Your task to perform on an android device: toggle sleep mode Image 0: 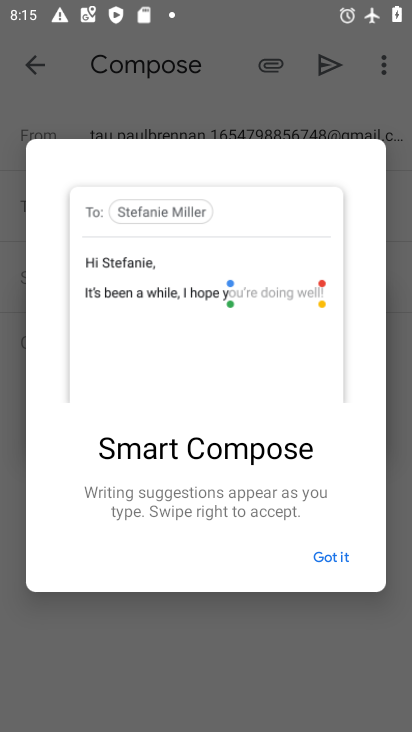
Step 0: press home button
Your task to perform on an android device: toggle sleep mode Image 1: 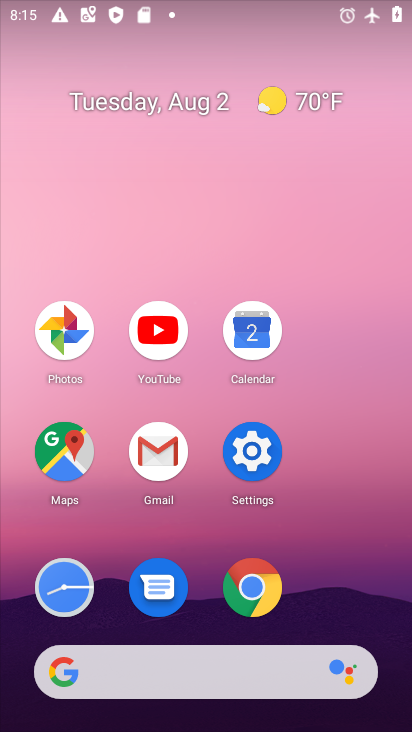
Step 1: click (250, 446)
Your task to perform on an android device: toggle sleep mode Image 2: 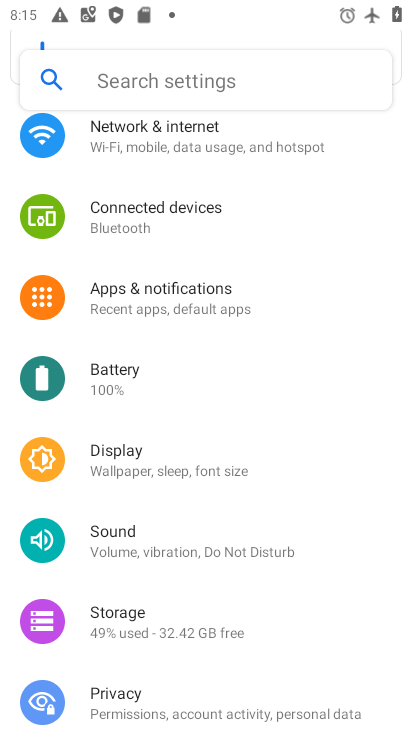
Step 2: click (138, 457)
Your task to perform on an android device: toggle sleep mode Image 3: 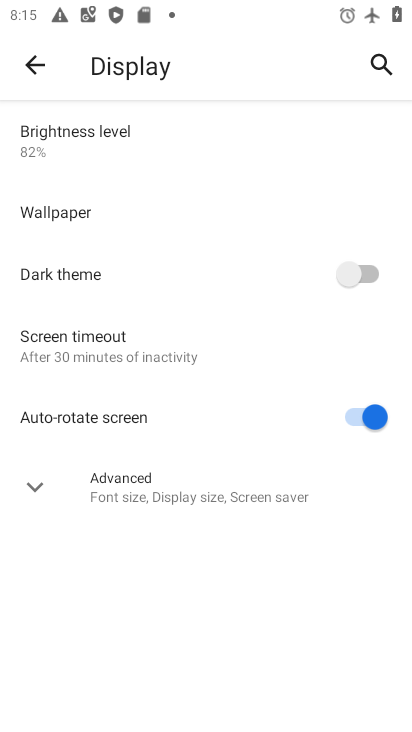
Step 3: click (96, 481)
Your task to perform on an android device: toggle sleep mode Image 4: 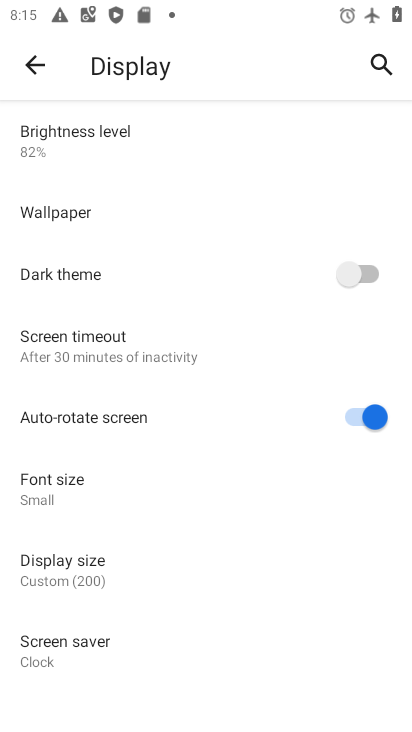
Step 4: task complete